Your task to perform on an android device: open chrome privacy settings Image 0: 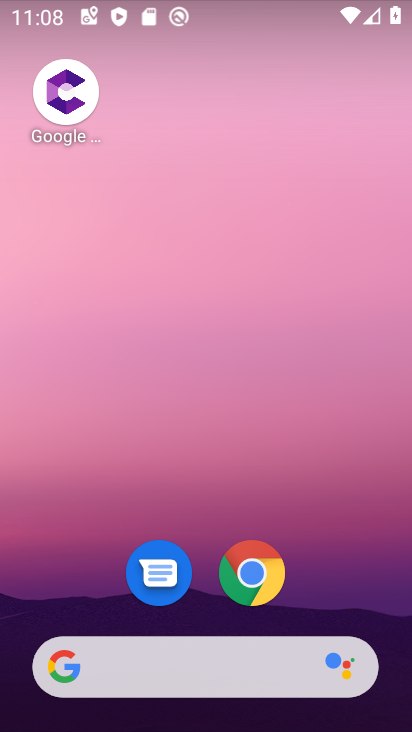
Step 0: click (255, 554)
Your task to perform on an android device: open chrome privacy settings Image 1: 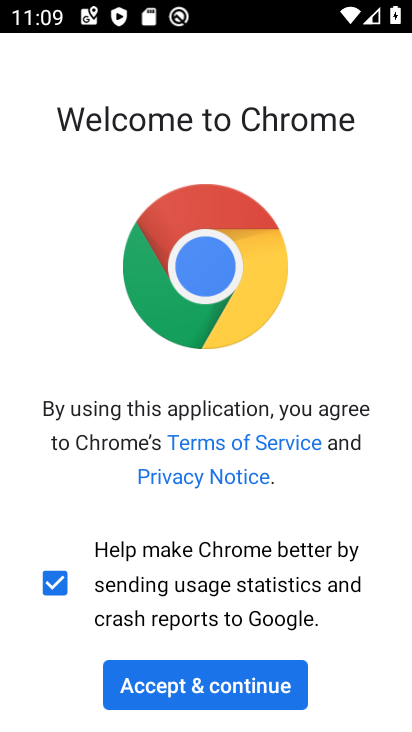
Step 1: click (272, 677)
Your task to perform on an android device: open chrome privacy settings Image 2: 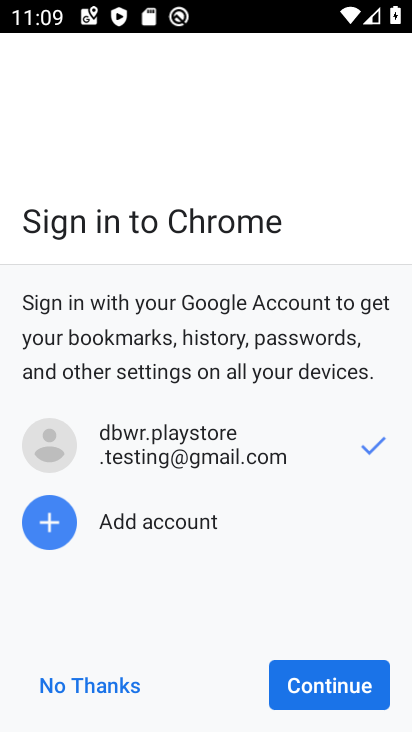
Step 2: click (330, 696)
Your task to perform on an android device: open chrome privacy settings Image 3: 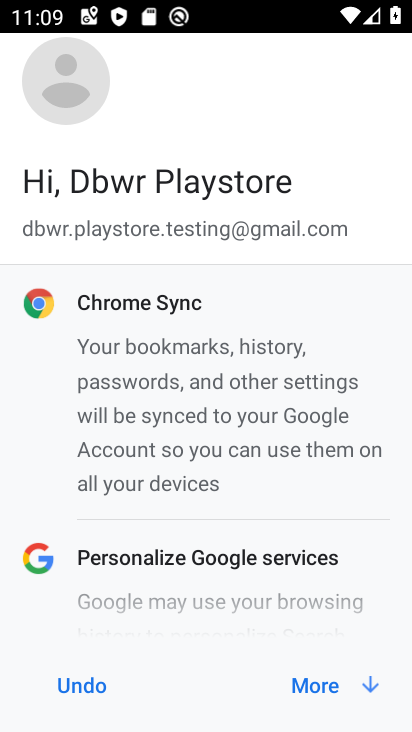
Step 3: click (333, 689)
Your task to perform on an android device: open chrome privacy settings Image 4: 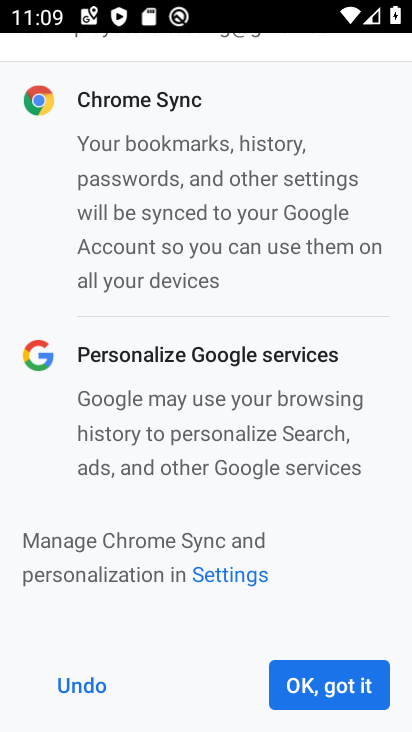
Step 4: click (333, 689)
Your task to perform on an android device: open chrome privacy settings Image 5: 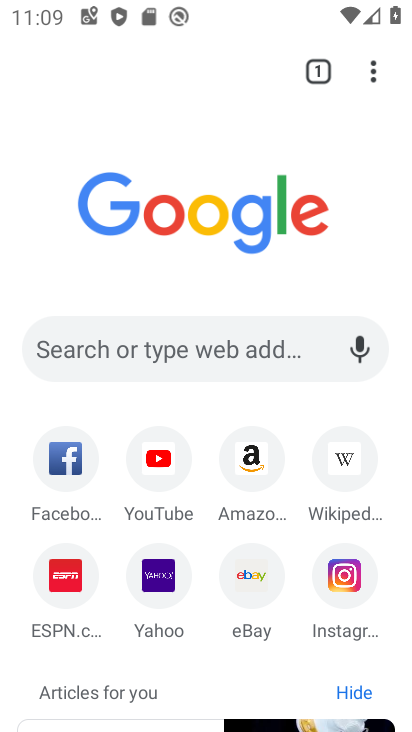
Step 5: click (371, 72)
Your task to perform on an android device: open chrome privacy settings Image 6: 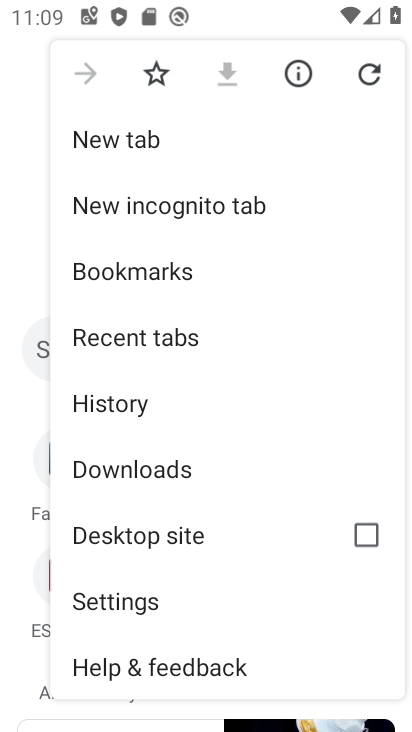
Step 6: click (134, 596)
Your task to perform on an android device: open chrome privacy settings Image 7: 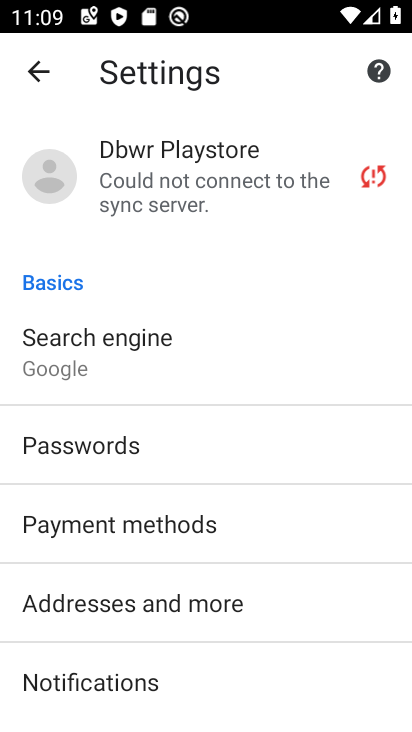
Step 7: drag from (254, 575) to (148, 315)
Your task to perform on an android device: open chrome privacy settings Image 8: 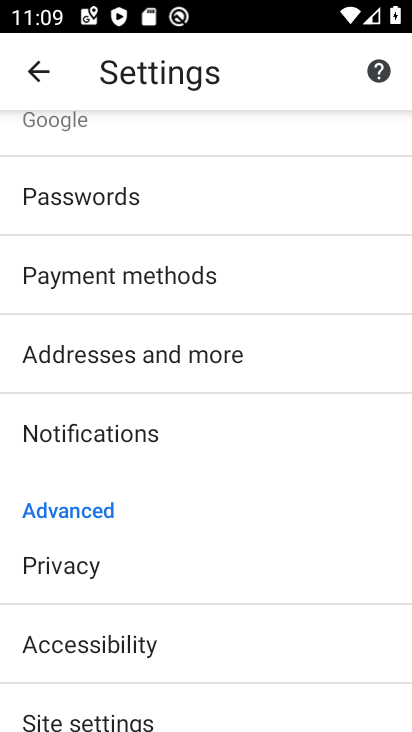
Step 8: click (204, 575)
Your task to perform on an android device: open chrome privacy settings Image 9: 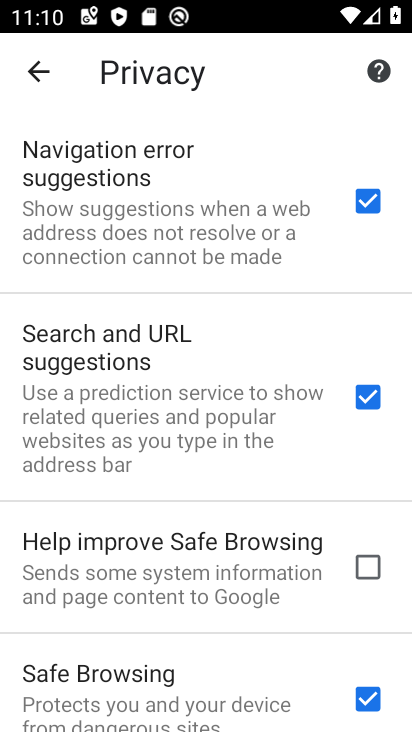
Step 9: task complete